Your task to perform on an android device: star an email in the gmail app Image 0: 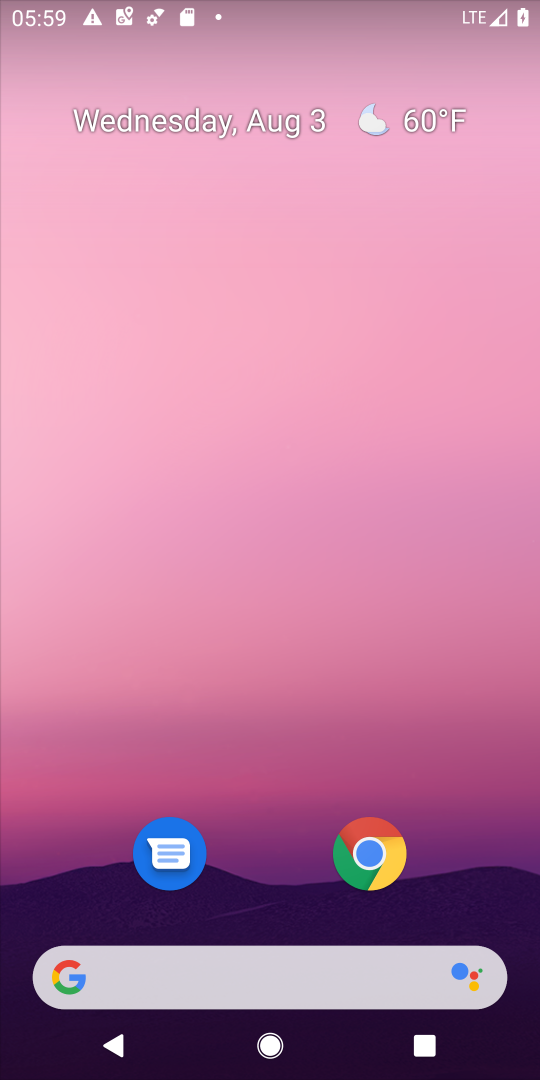
Step 0: drag from (295, 940) to (305, 0)
Your task to perform on an android device: star an email in the gmail app Image 1: 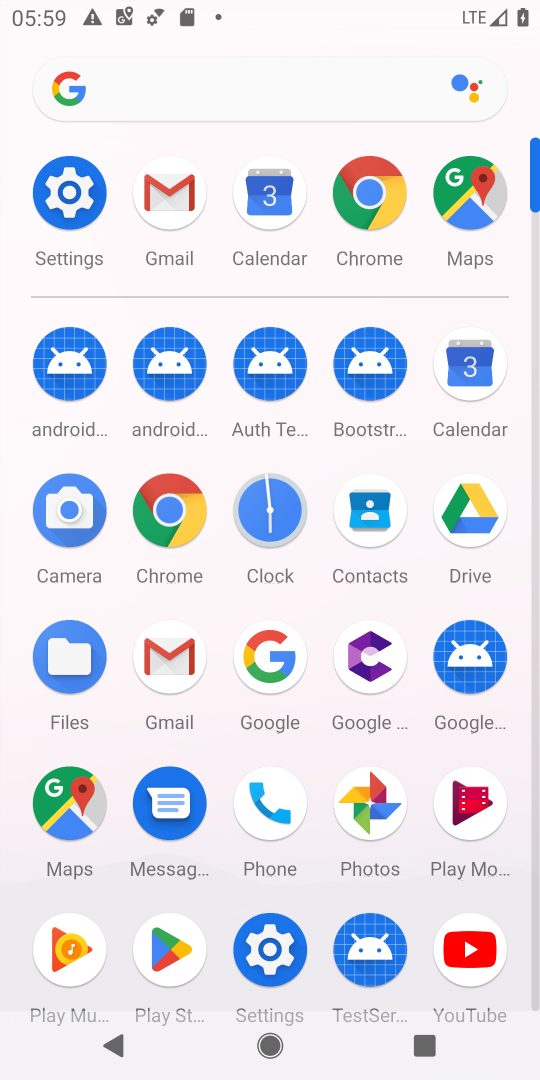
Step 1: click (168, 654)
Your task to perform on an android device: star an email in the gmail app Image 2: 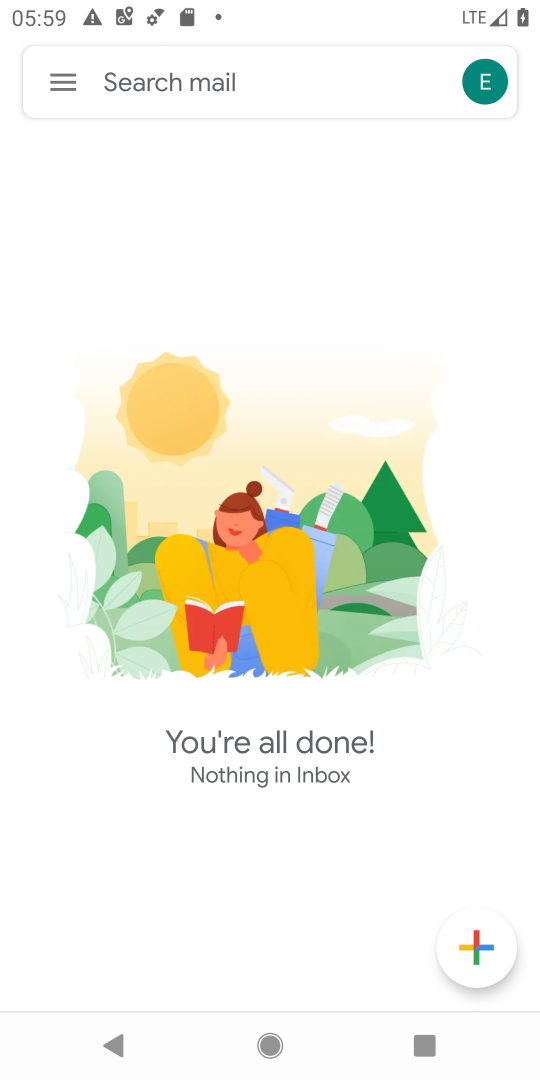
Step 2: task complete